Your task to perform on an android device: Check the weather Image 0: 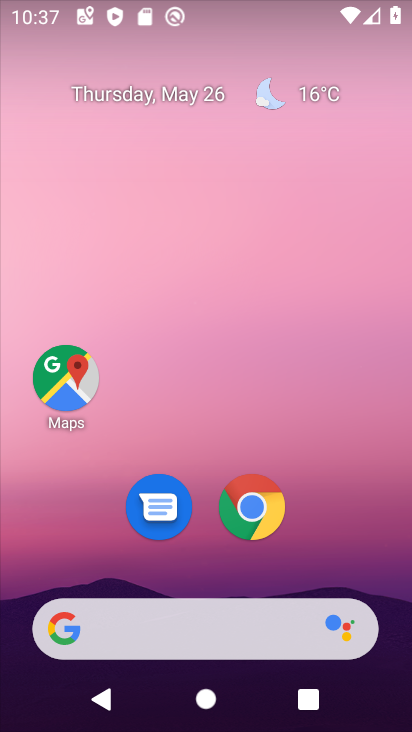
Step 0: drag from (190, 550) to (175, 89)
Your task to perform on an android device: Check the weather Image 1: 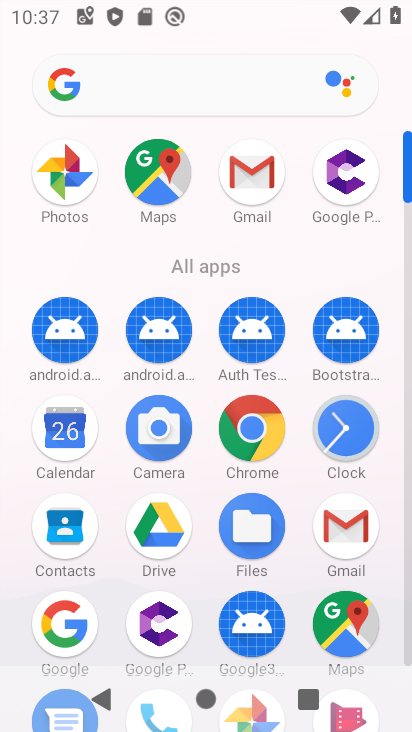
Step 1: click (63, 615)
Your task to perform on an android device: Check the weather Image 2: 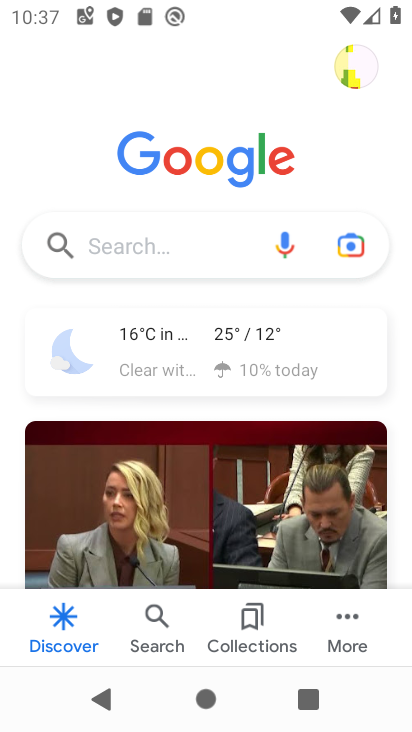
Step 2: click (168, 254)
Your task to perform on an android device: Check the weather Image 3: 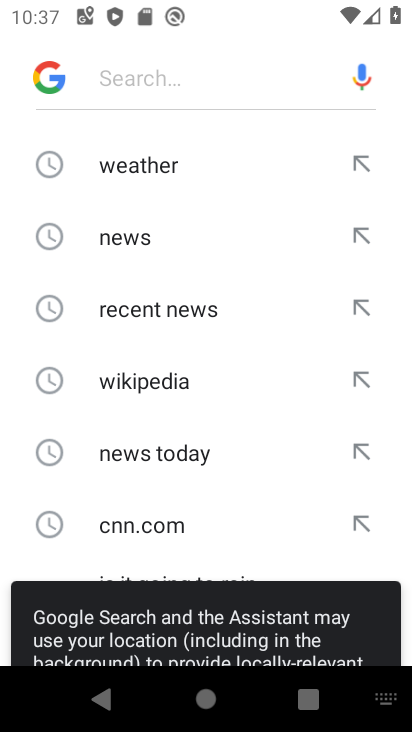
Step 3: click (131, 162)
Your task to perform on an android device: Check the weather Image 4: 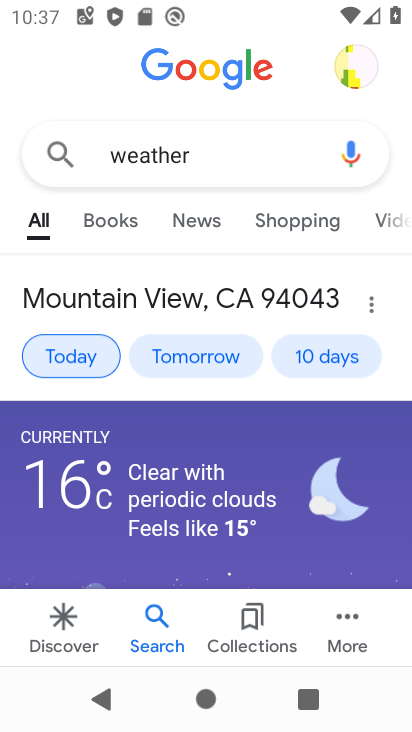
Step 4: task complete